Your task to perform on an android device: toggle data saver in the chrome app Image 0: 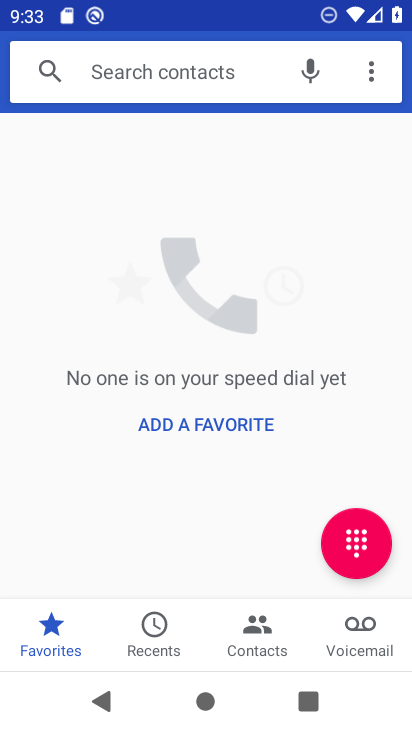
Step 0: press home button
Your task to perform on an android device: toggle data saver in the chrome app Image 1: 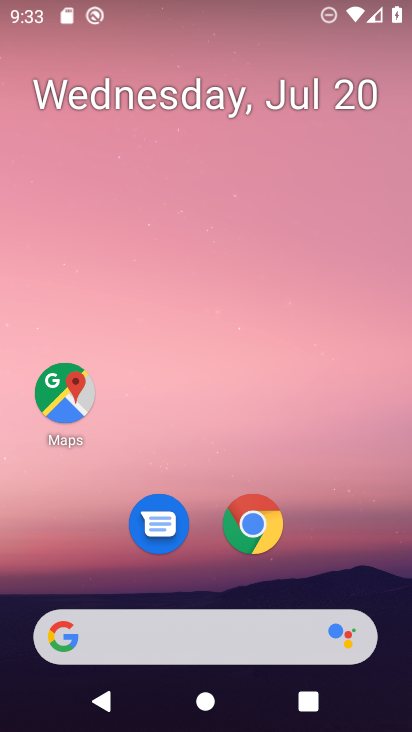
Step 1: click (259, 529)
Your task to perform on an android device: toggle data saver in the chrome app Image 2: 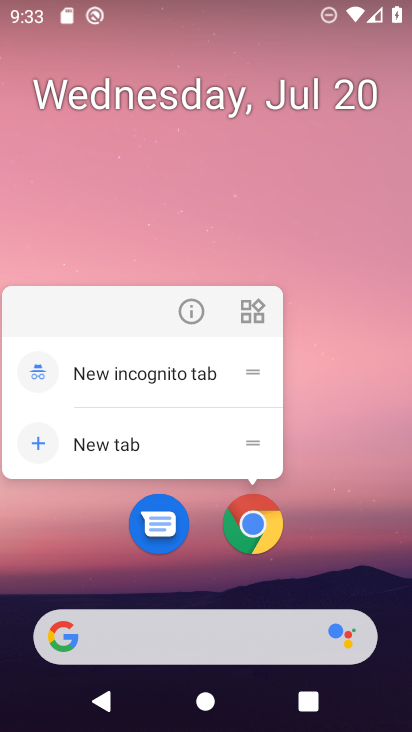
Step 2: click (252, 530)
Your task to perform on an android device: toggle data saver in the chrome app Image 3: 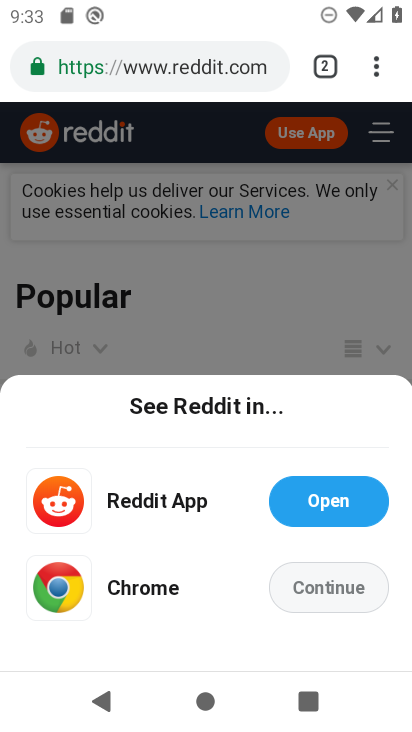
Step 3: drag from (376, 69) to (228, 533)
Your task to perform on an android device: toggle data saver in the chrome app Image 4: 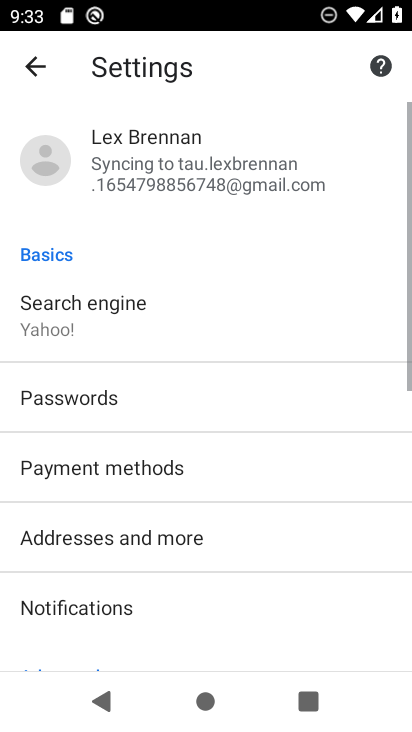
Step 4: drag from (184, 592) to (266, 80)
Your task to perform on an android device: toggle data saver in the chrome app Image 5: 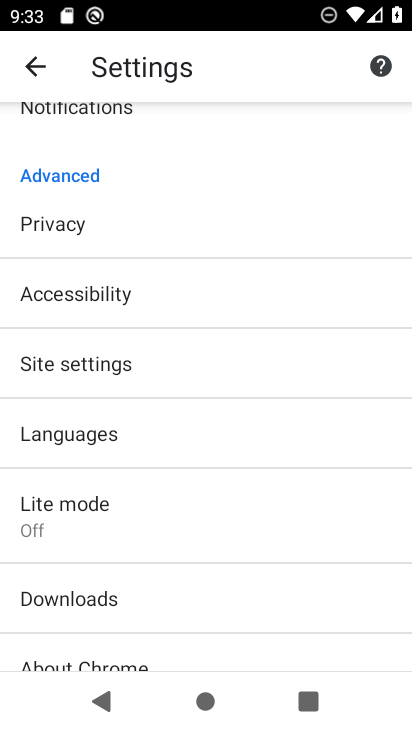
Step 5: click (98, 517)
Your task to perform on an android device: toggle data saver in the chrome app Image 6: 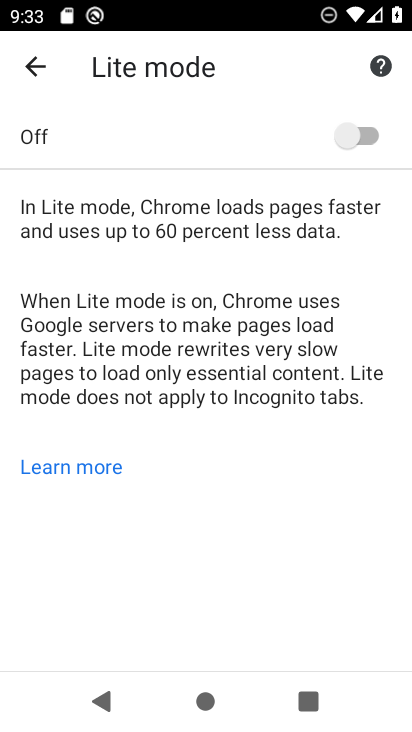
Step 6: click (364, 135)
Your task to perform on an android device: toggle data saver in the chrome app Image 7: 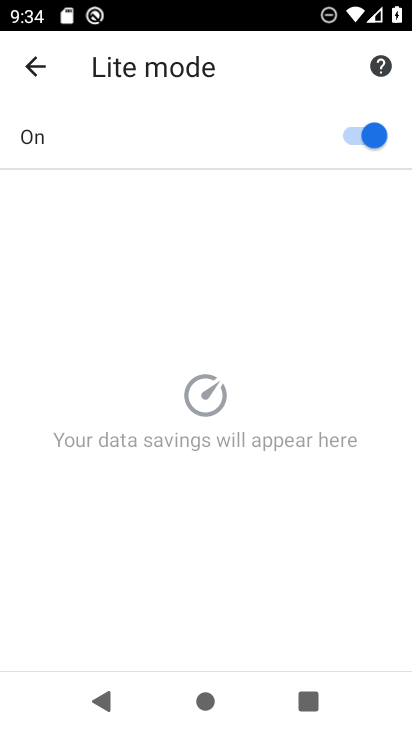
Step 7: task complete